Your task to perform on an android device: Open calendar and show me the first week of next month Image 0: 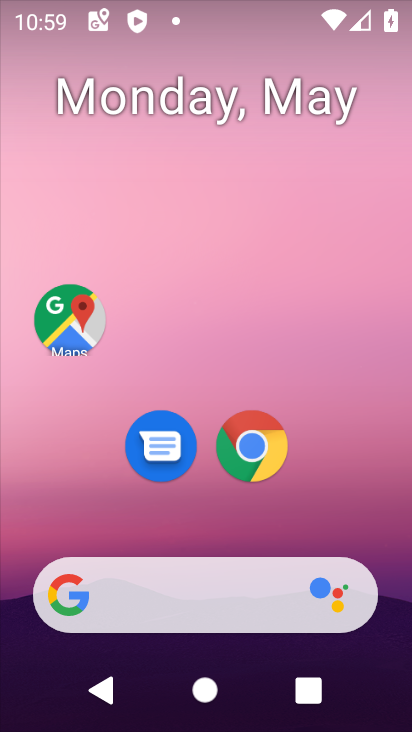
Step 0: drag from (303, 352) to (235, 22)
Your task to perform on an android device: Open calendar and show me the first week of next month Image 1: 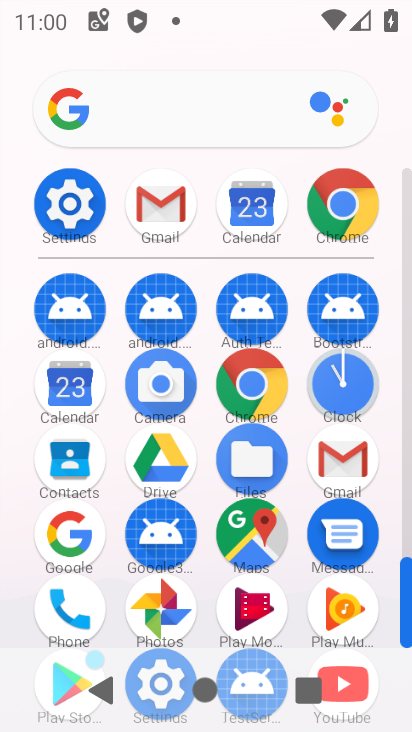
Step 1: click (87, 385)
Your task to perform on an android device: Open calendar and show me the first week of next month Image 2: 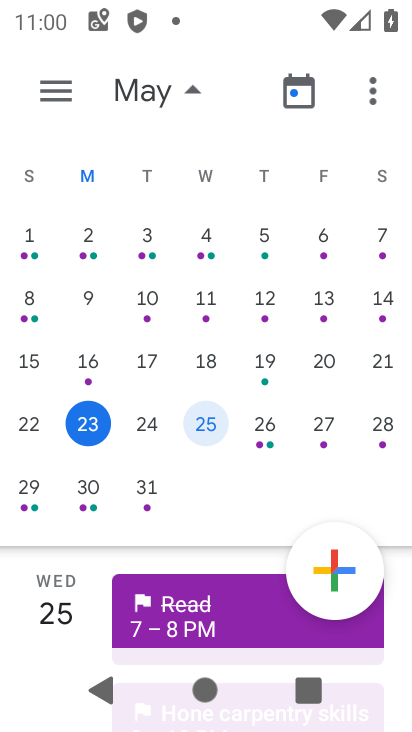
Step 2: drag from (325, 423) to (6, 443)
Your task to perform on an android device: Open calendar and show me the first week of next month Image 3: 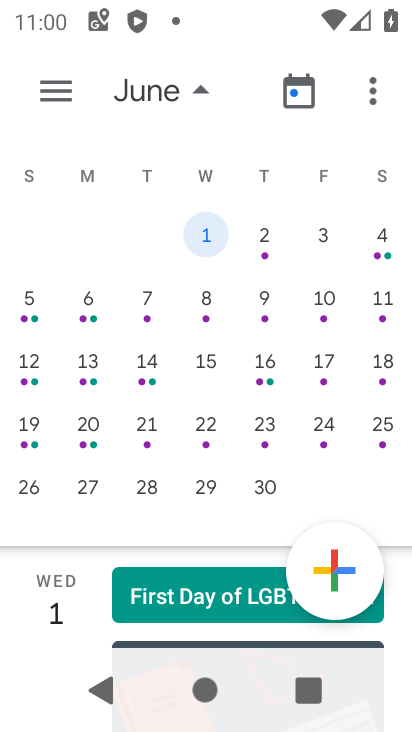
Step 3: click (369, 250)
Your task to perform on an android device: Open calendar and show me the first week of next month Image 4: 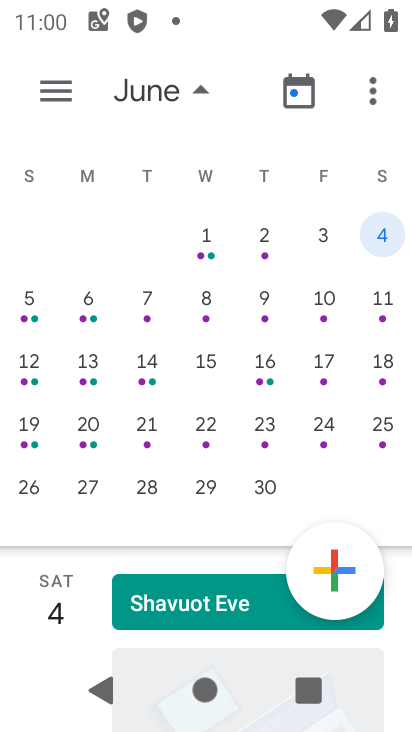
Step 4: task complete